Your task to perform on an android device: Search for logitech g pro on costco.com, select the first entry, add it to the cart, then select checkout. Image 0: 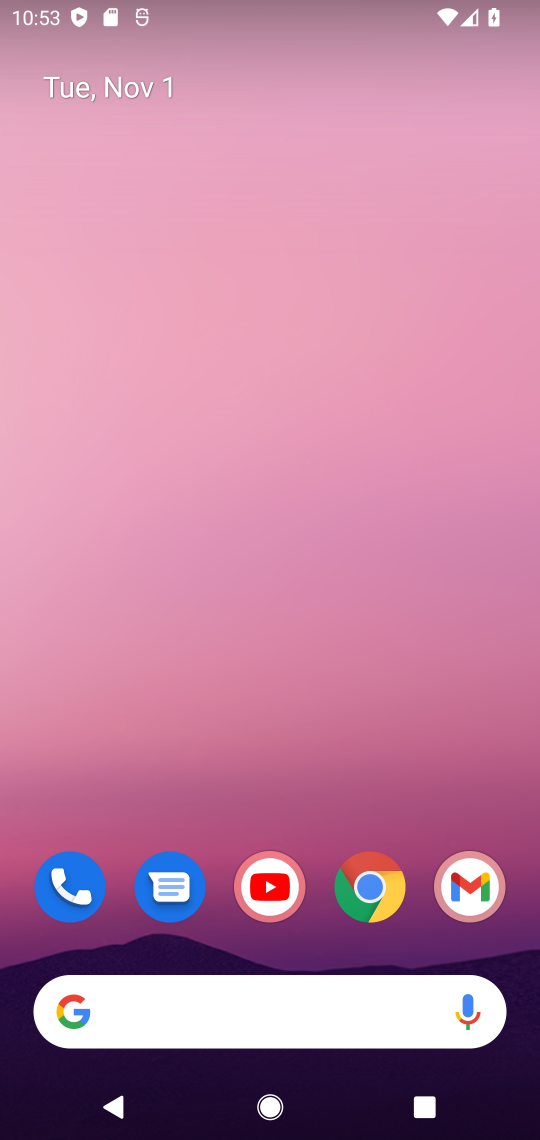
Step 0: click (371, 890)
Your task to perform on an android device: Search for logitech g pro on costco.com, select the first entry, add it to the cart, then select checkout. Image 1: 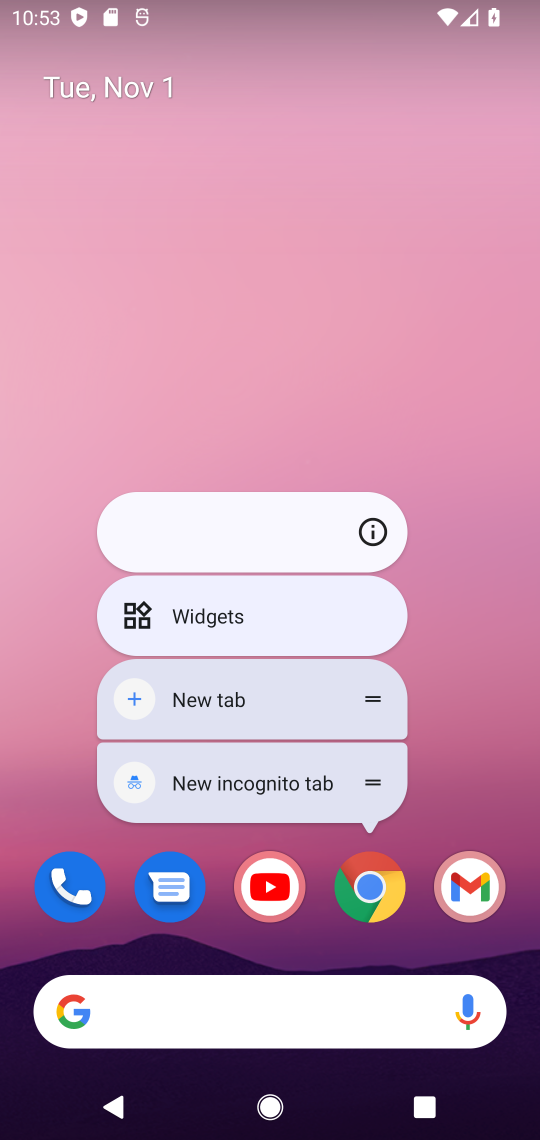
Step 1: click (386, 885)
Your task to perform on an android device: Search for logitech g pro on costco.com, select the first entry, add it to the cart, then select checkout. Image 2: 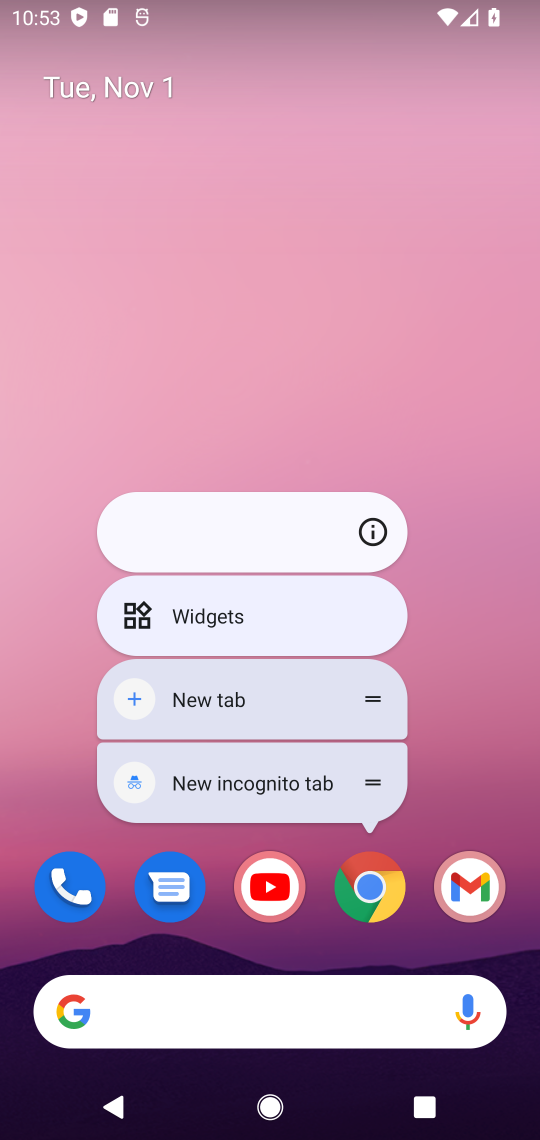
Step 2: click (386, 885)
Your task to perform on an android device: Search for logitech g pro on costco.com, select the first entry, add it to the cart, then select checkout. Image 3: 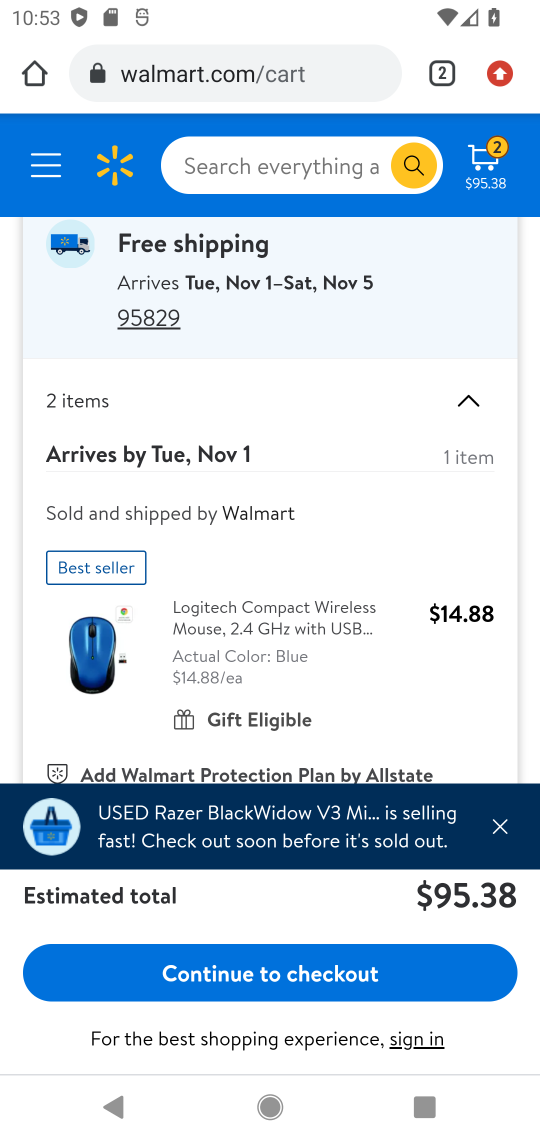
Step 3: click (207, 173)
Your task to perform on an android device: Search for logitech g pro on costco.com, select the first entry, add it to the cart, then select checkout. Image 4: 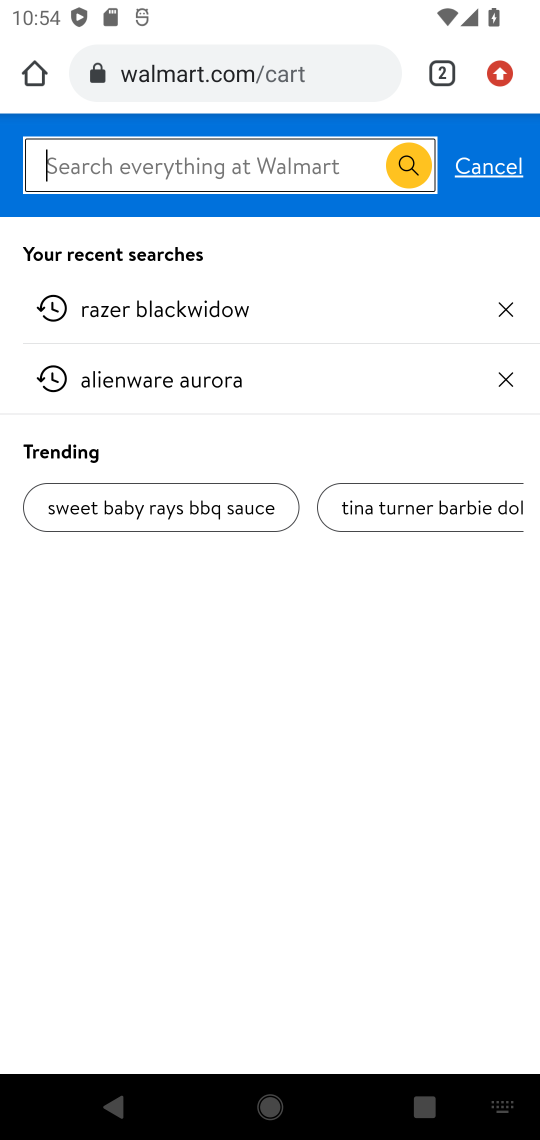
Step 4: click (166, 60)
Your task to perform on an android device: Search for logitech g pro on costco.com, select the first entry, add it to the cart, then select checkout. Image 5: 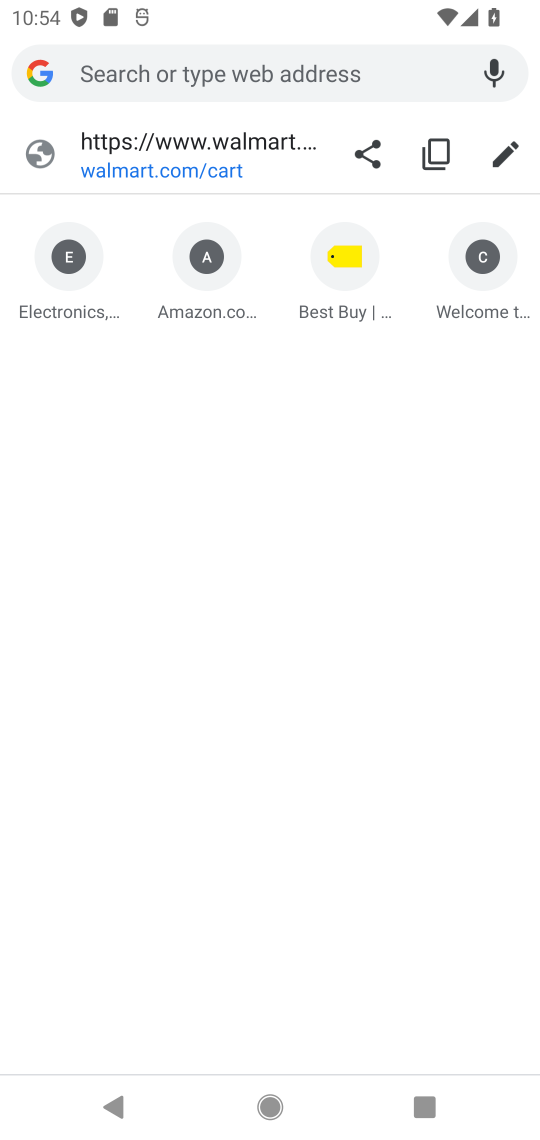
Step 5: click (161, 64)
Your task to perform on an android device: Search for logitech g pro on costco.com, select the first entry, add it to the cart, then select checkout. Image 6: 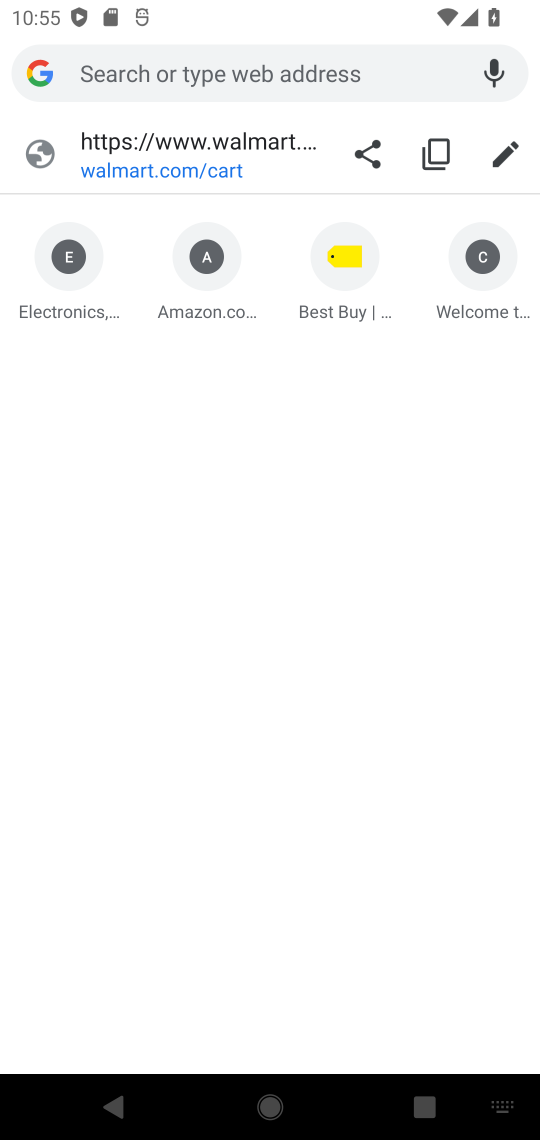
Step 6: type "costco.com"
Your task to perform on an android device: Search for logitech g pro on costco.com, select the first entry, add it to the cart, then select checkout. Image 7: 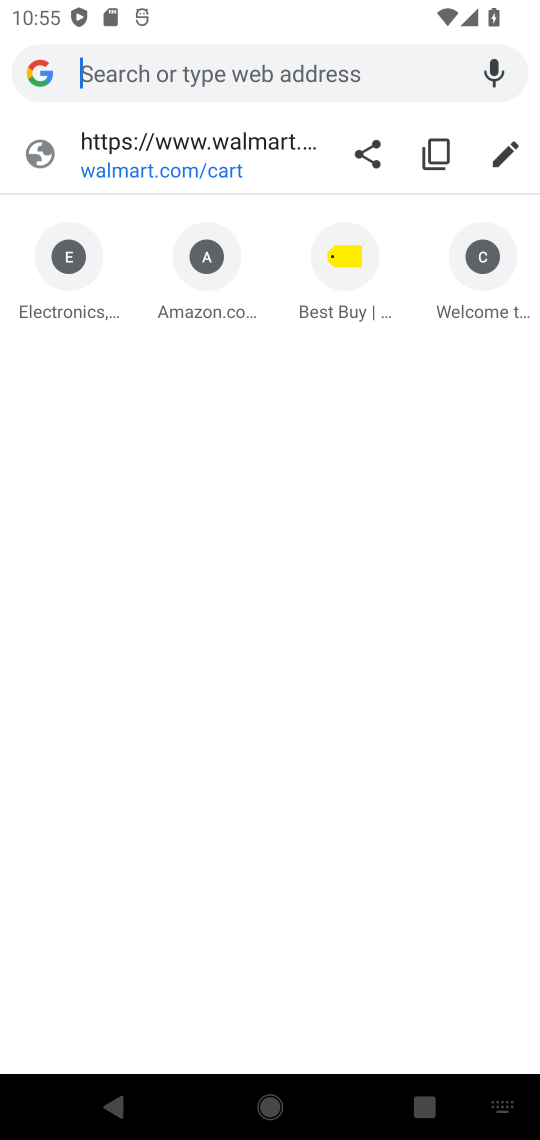
Step 7: click (254, 68)
Your task to perform on an android device: Search for logitech g pro on costco.com, select the first entry, add it to the cart, then select checkout. Image 8: 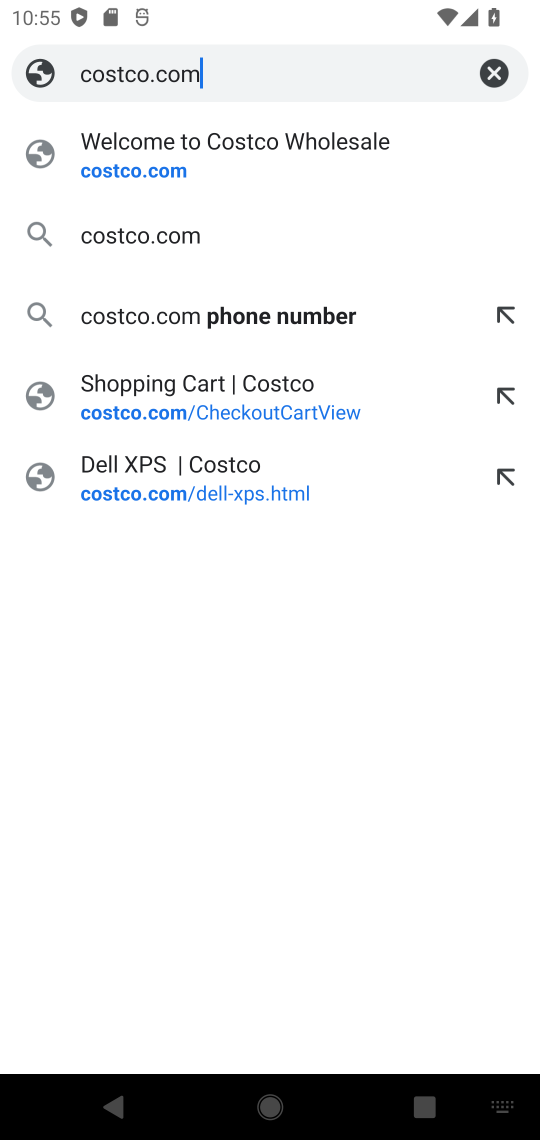
Step 8: type "costco.com"
Your task to perform on an android device: Search for logitech g pro on costco.com, select the first entry, add it to the cart, then select checkout. Image 9: 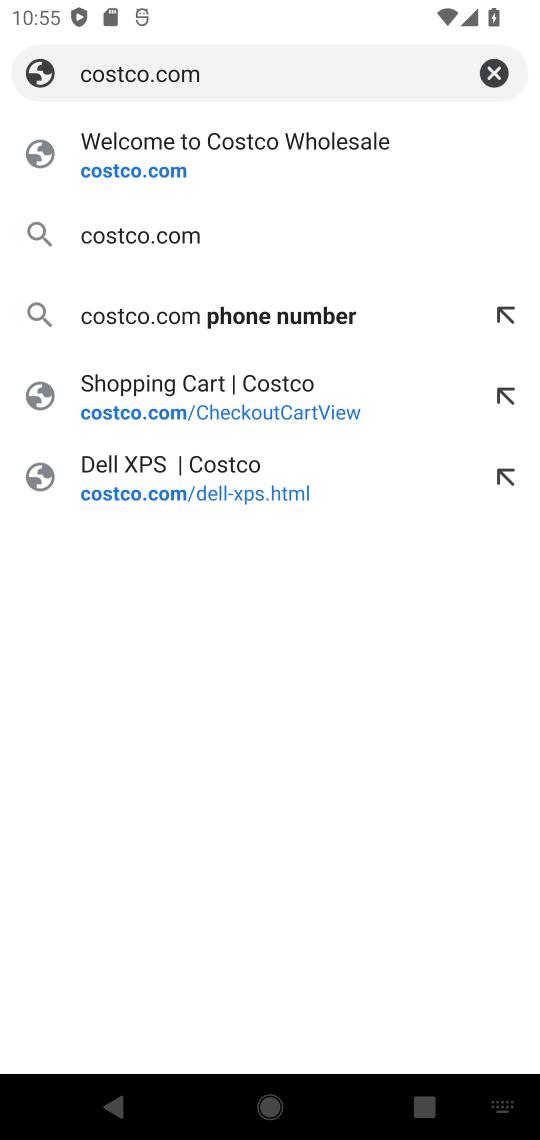
Step 9: click (170, 237)
Your task to perform on an android device: Search for logitech g pro on costco.com, select the first entry, add it to the cart, then select checkout. Image 10: 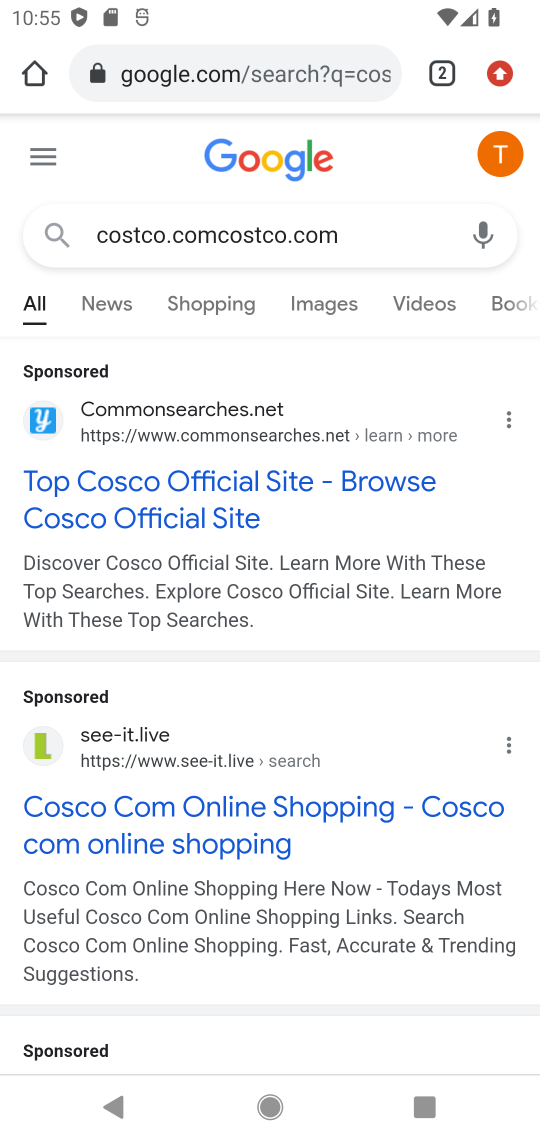
Step 10: click (242, 80)
Your task to perform on an android device: Search for logitech g pro on costco.com, select the first entry, add it to the cart, then select checkout. Image 11: 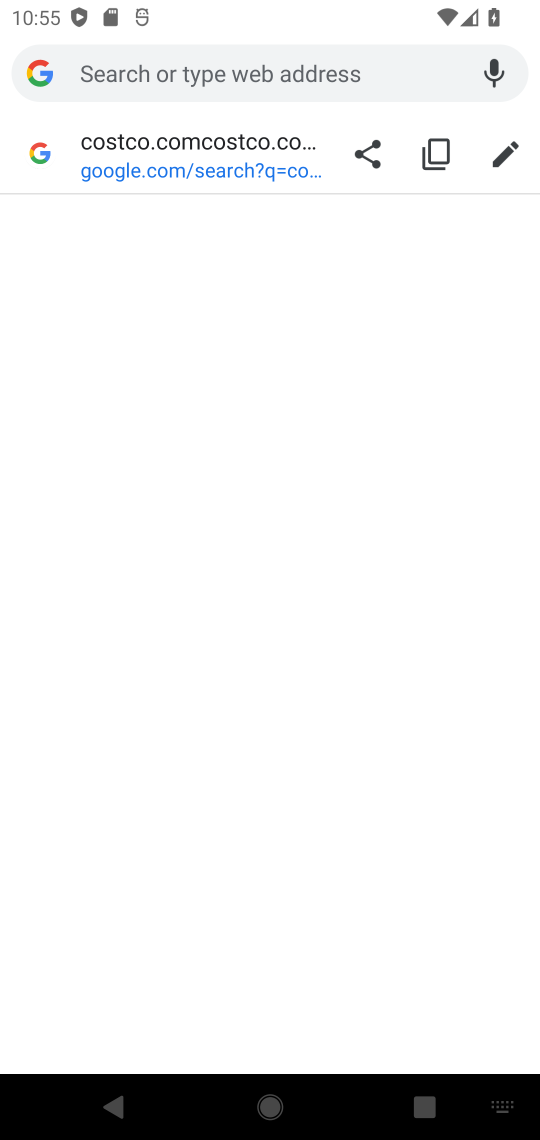
Step 11: type "costco.com"
Your task to perform on an android device: Search for logitech g pro on costco.com, select the first entry, add it to the cart, then select checkout. Image 12: 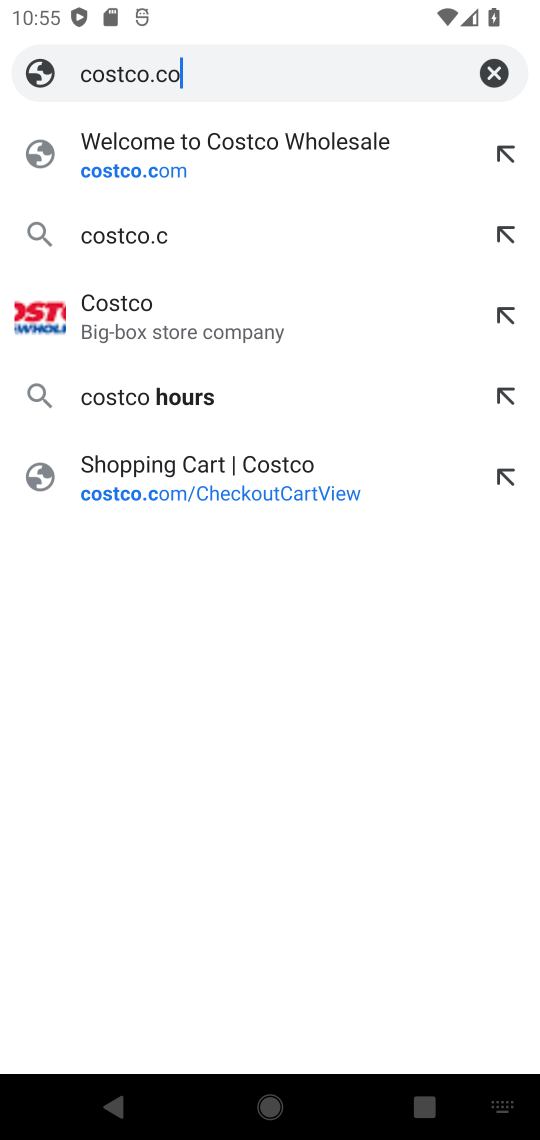
Step 12: press enter
Your task to perform on an android device: Search for logitech g pro on costco.com, select the first entry, add it to the cart, then select checkout. Image 13: 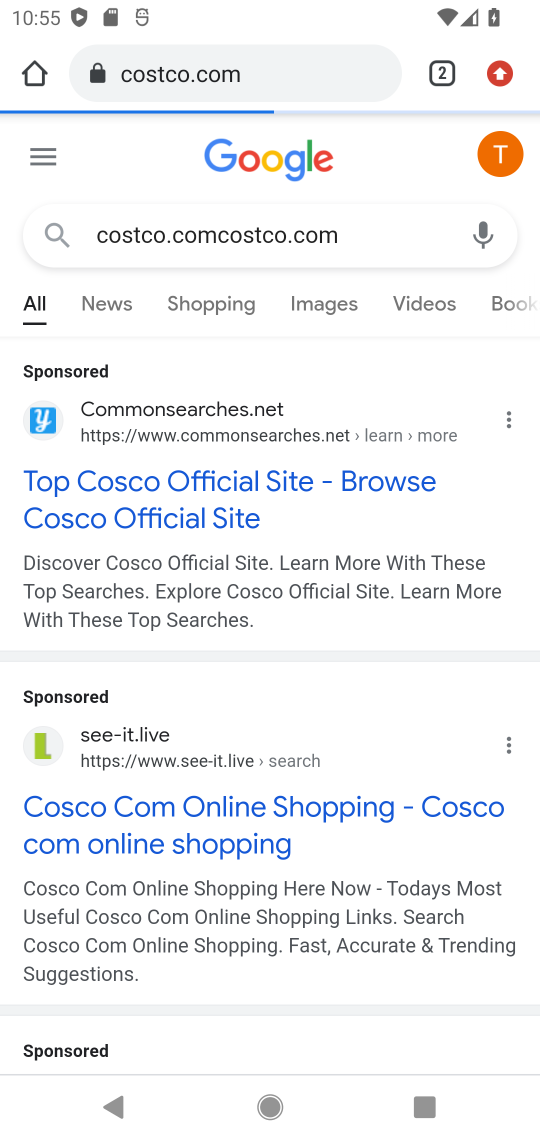
Step 13: task complete